Your task to perform on an android device: turn off data saver in the chrome app Image 0: 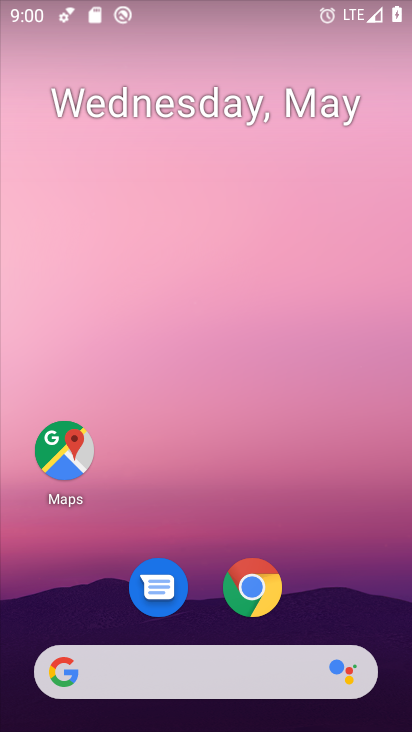
Step 0: click (227, 595)
Your task to perform on an android device: turn off data saver in the chrome app Image 1: 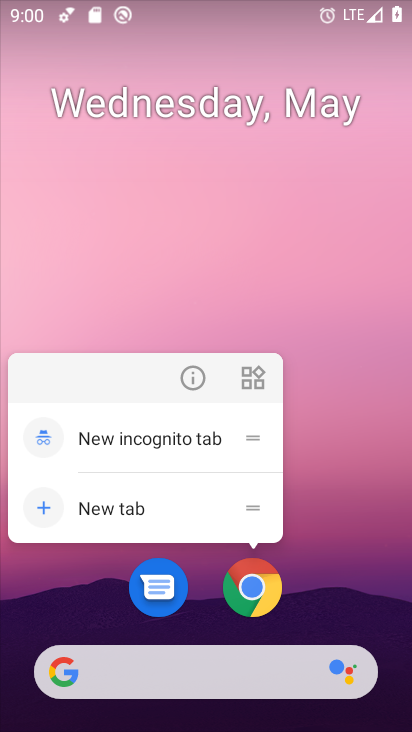
Step 1: click (262, 603)
Your task to perform on an android device: turn off data saver in the chrome app Image 2: 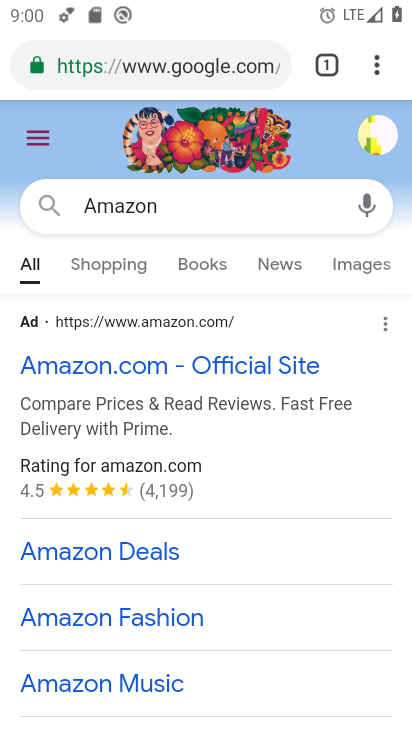
Step 2: click (383, 67)
Your task to perform on an android device: turn off data saver in the chrome app Image 3: 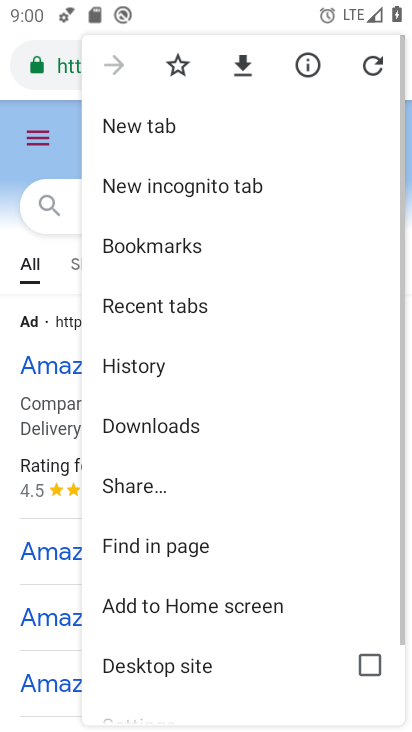
Step 3: drag from (193, 608) to (235, 303)
Your task to perform on an android device: turn off data saver in the chrome app Image 4: 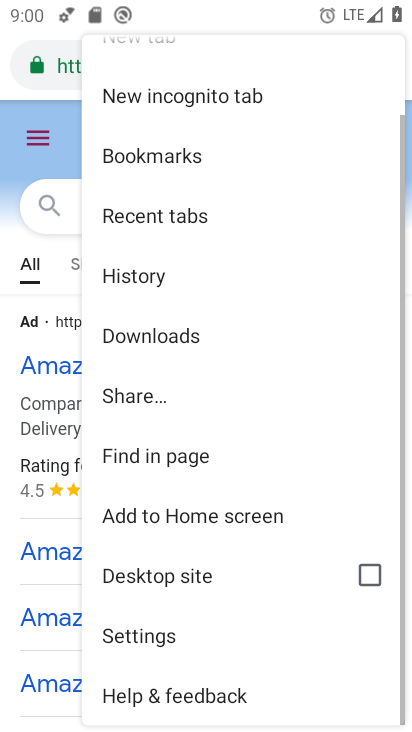
Step 4: click (170, 641)
Your task to perform on an android device: turn off data saver in the chrome app Image 5: 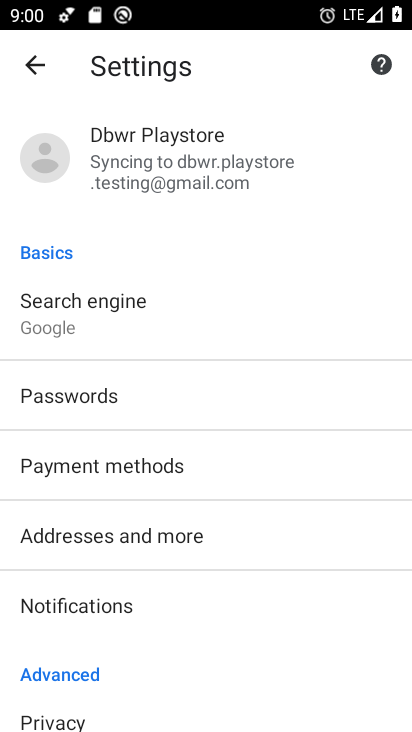
Step 5: drag from (125, 542) to (150, 335)
Your task to perform on an android device: turn off data saver in the chrome app Image 6: 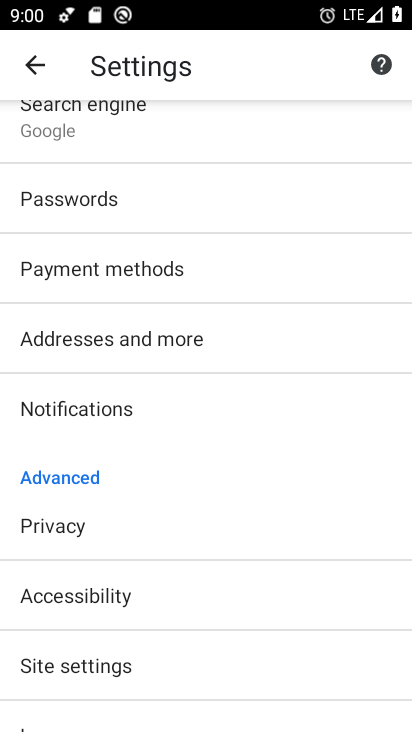
Step 6: drag from (152, 584) to (180, 398)
Your task to perform on an android device: turn off data saver in the chrome app Image 7: 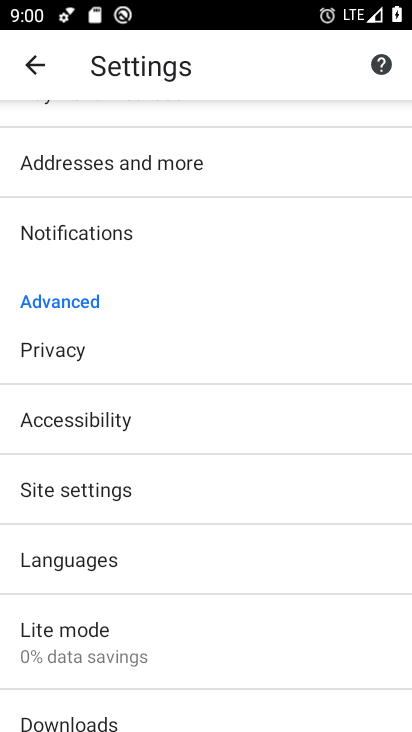
Step 7: click (73, 653)
Your task to perform on an android device: turn off data saver in the chrome app Image 8: 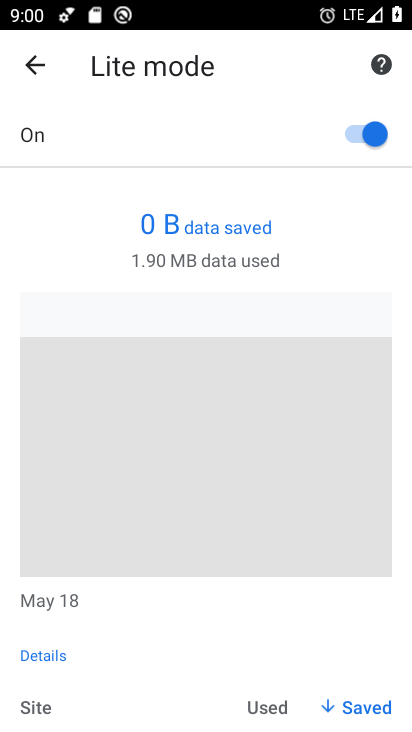
Step 8: click (340, 141)
Your task to perform on an android device: turn off data saver in the chrome app Image 9: 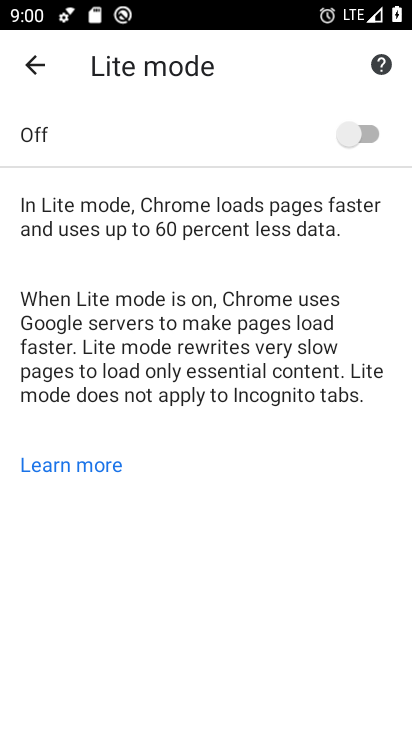
Step 9: task complete